Your task to perform on an android device: turn on wifi Image 0: 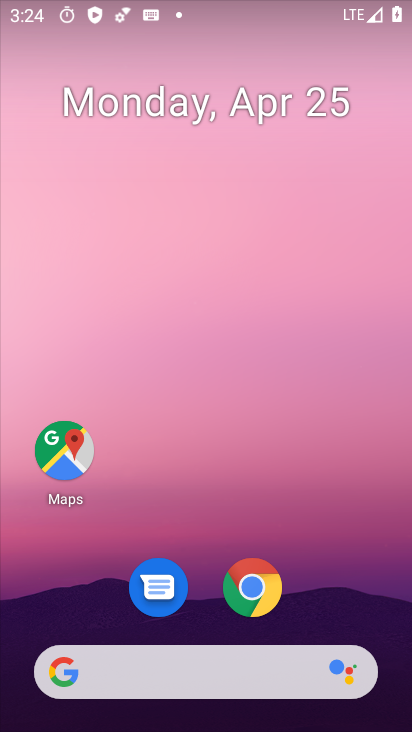
Step 0: drag from (294, 192) to (275, 15)
Your task to perform on an android device: turn on wifi Image 1: 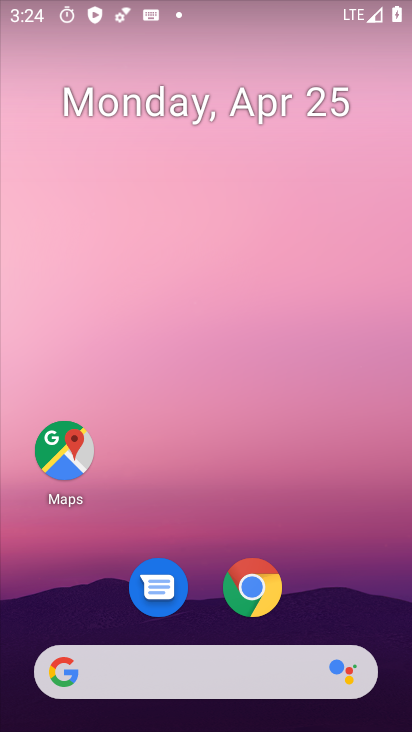
Step 1: drag from (363, 138) to (358, 65)
Your task to perform on an android device: turn on wifi Image 2: 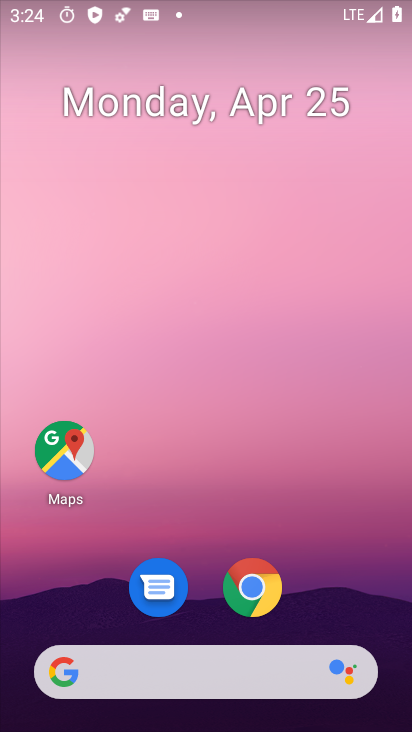
Step 2: drag from (362, 492) to (292, 25)
Your task to perform on an android device: turn on wifi Image 3: 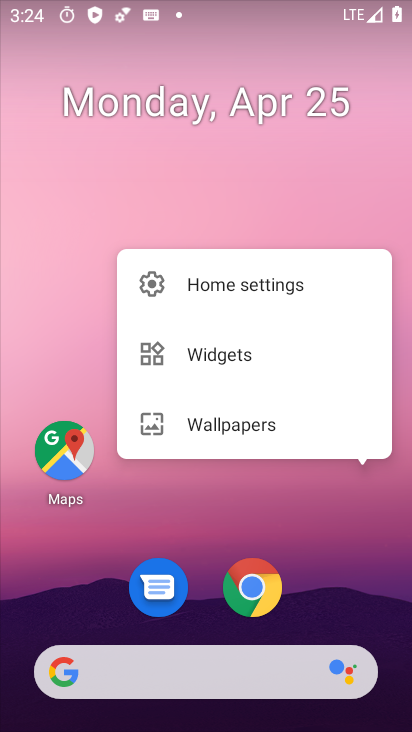
Step 3: drag from (341, 575) to (215, 67)
Your task to perform on an android device: turn on wifi Image 4: 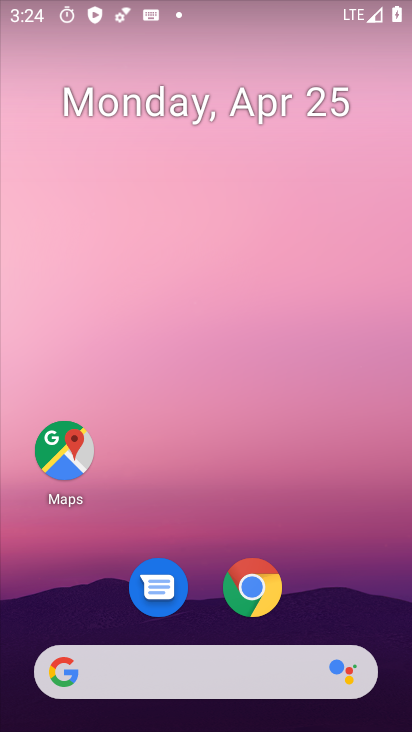
Step 4: drag from (331, 483) to (245, 0)
Your task to perform on an android device: turn on wifi Image 5: 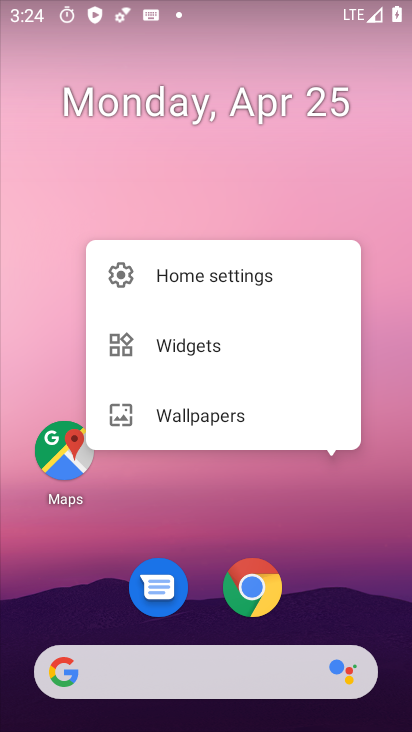
Step 5: drag from (359, 576) to (236, 41)
Your task to perform on an android device: turn on wifi Image 6: 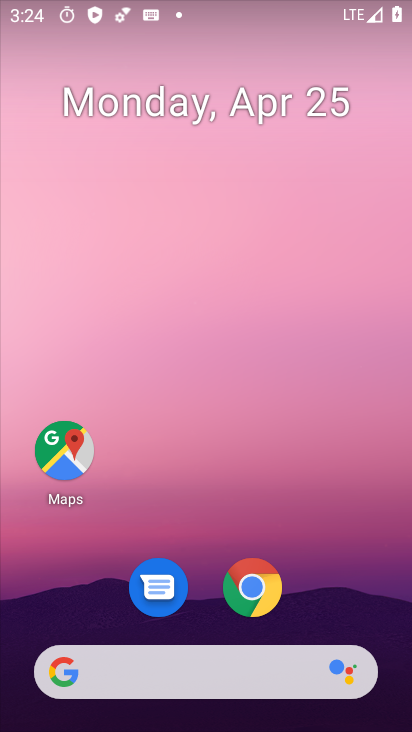
Step 6: click (287, 318)
Your task to perform on an android device: turn on wifi Image 7: 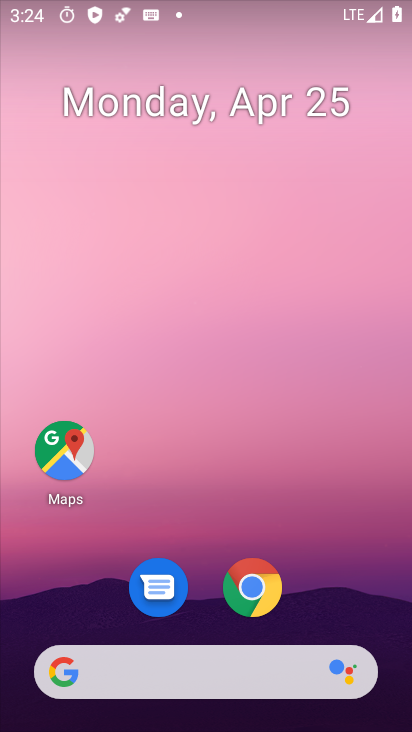
Step 7: drag from (310, 546) to (212, 133)
Your task to perform on an android device: turn on wifi Image 8: 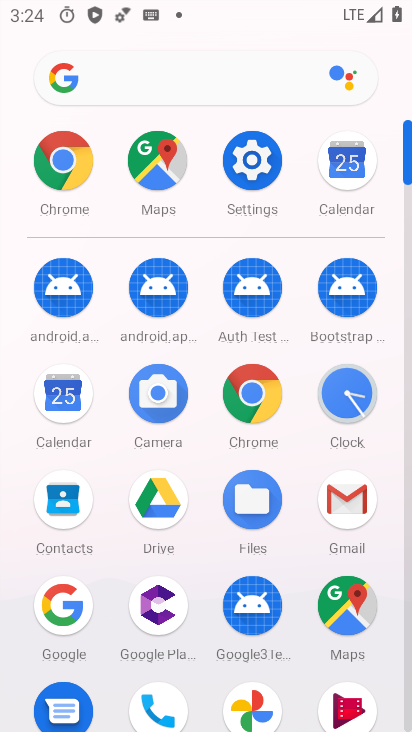
Step 8: click (248, 156)
Your task to perform on an android device: turn on wifi Image 9: 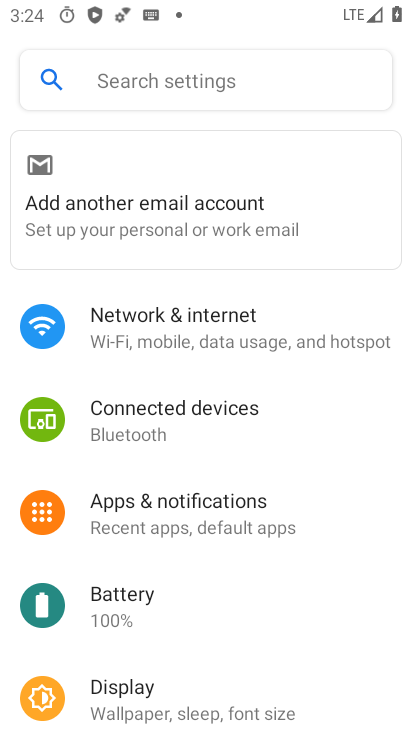
Step 9: click (200, 331)
Your task to perform on an android device: turn on wifi Image 10: 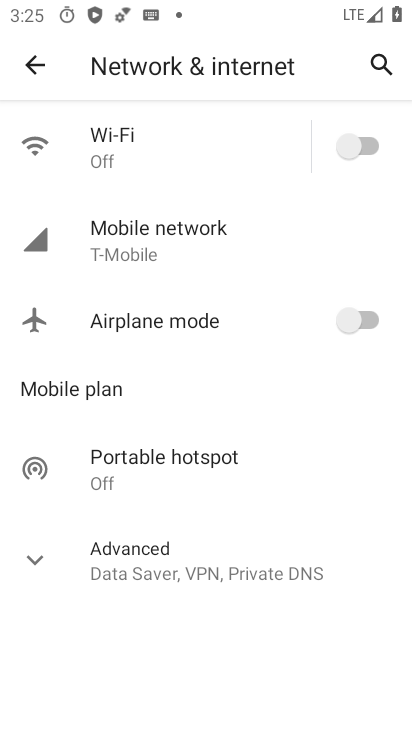
Step 10: click (368, 138)
Your task to perform on an android device: turn on wifi Image 11: 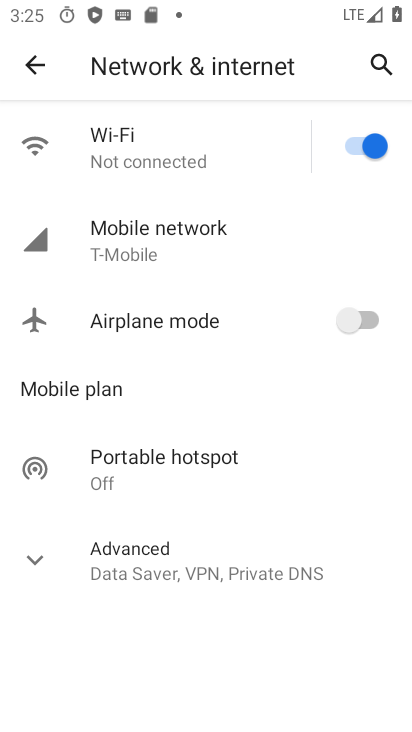
Step 11: task complete